Your task to perform on an android device: Open the stopwatch Image 0: 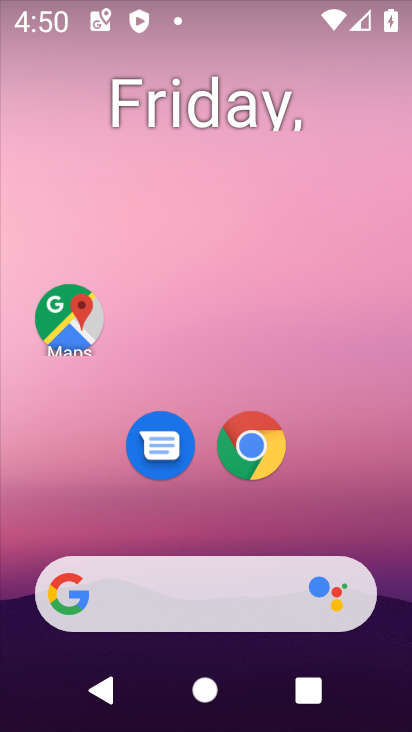
Step 0: drag from (335, 503) to (312, 67)
Your task to perform on an android device: Open the stopwatch Image 1: 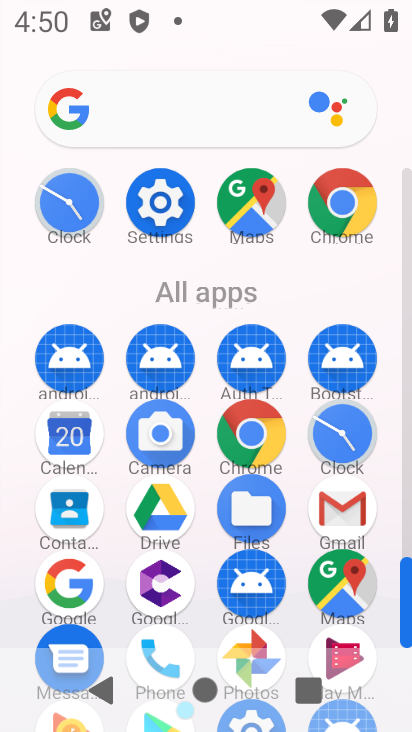
Step 1: click (59, 185)
Your task to perform on an android device: Open the stopwatch Image 2: 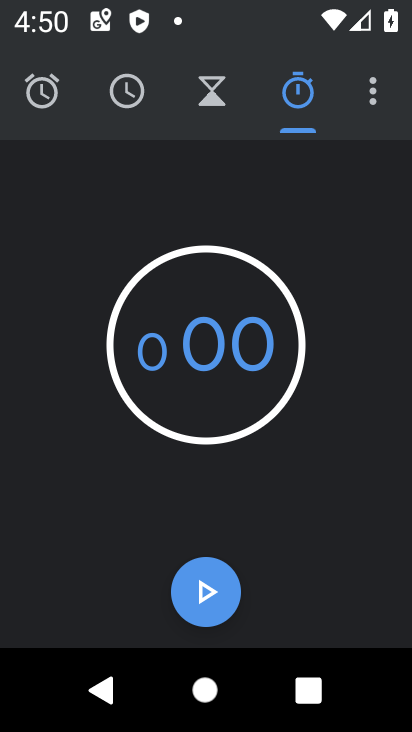
Step 2: task complete